Your task to perform on an android device: Open maps Image 0: 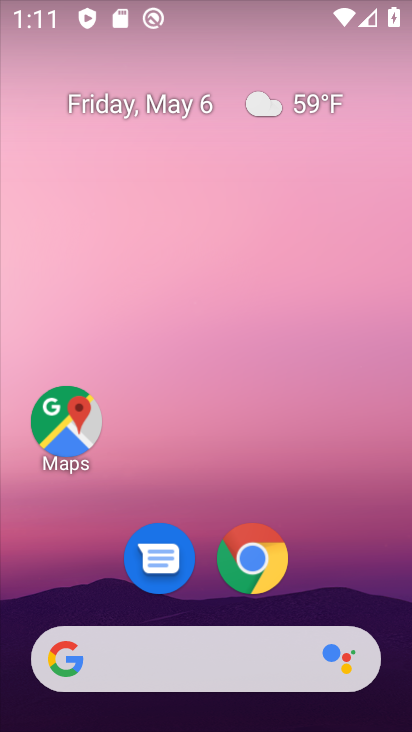
Step 0: drag from (202, 722) to (162, 107)
Your task to perform on an android device: Open maps Image 1: 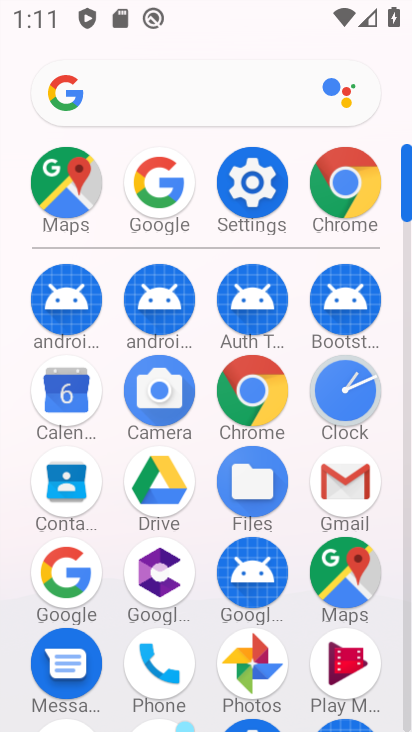
Step 1: click (344, 570)
Your task to perform on an android device: Open maps Image 2: 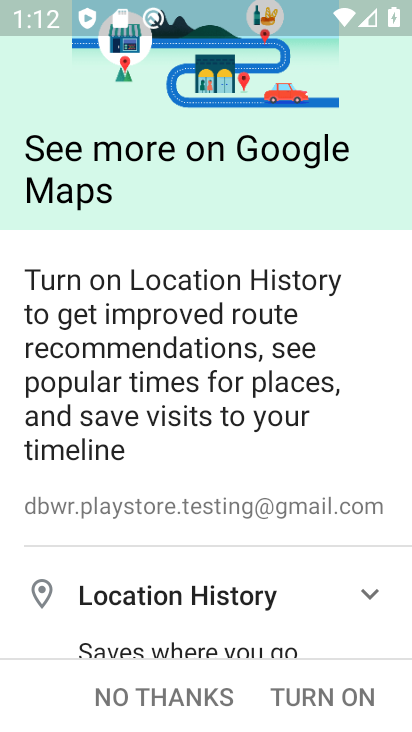
Step 2: click (339, 694)
Your task to perform on an android device: Open maps Image 3: 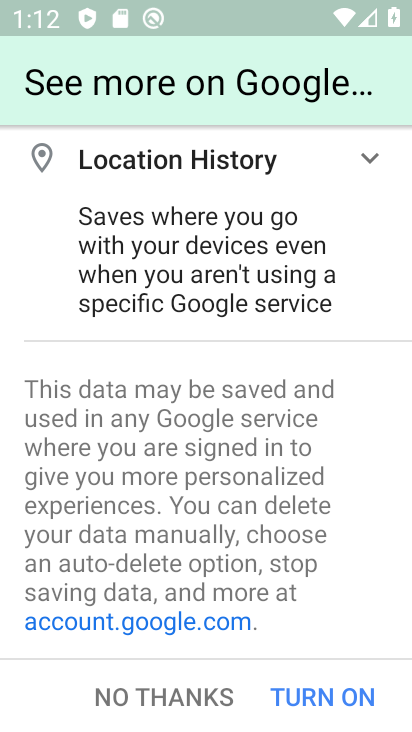
Step 3: click (337, 696)
Your task to perform on an android device: Open maps Image 4: 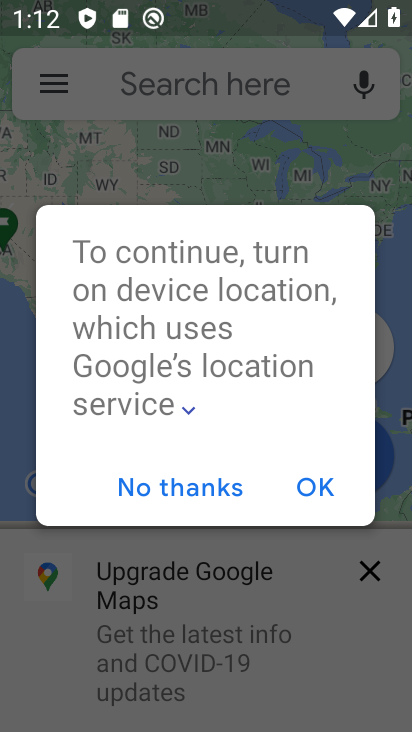
Step 4: click (314, 482)
Your task to perform on an android device: Open maps Image 5: 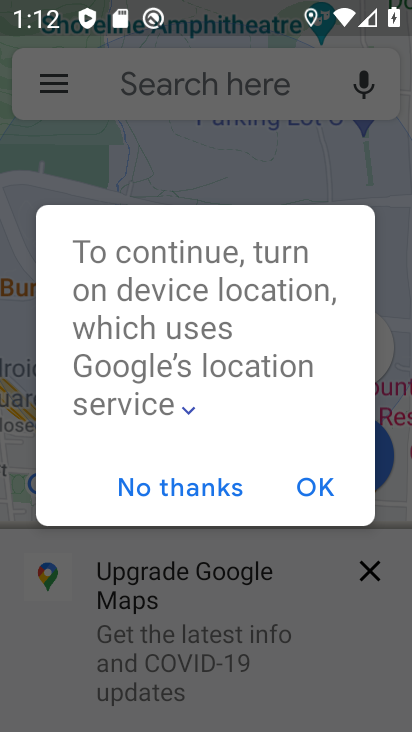
Step 5: click (311, 478)
Your task to perform on an android device: Open maps Image 6: 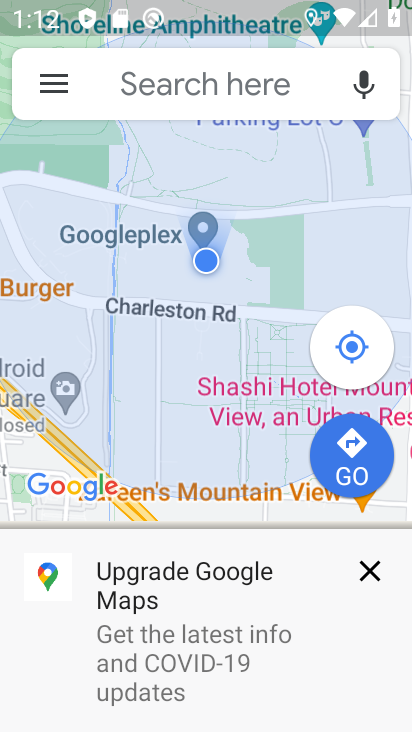
Step 6: task complete